Your task to perform on an android device: turn on priority inbox in the gmail app Image 0: 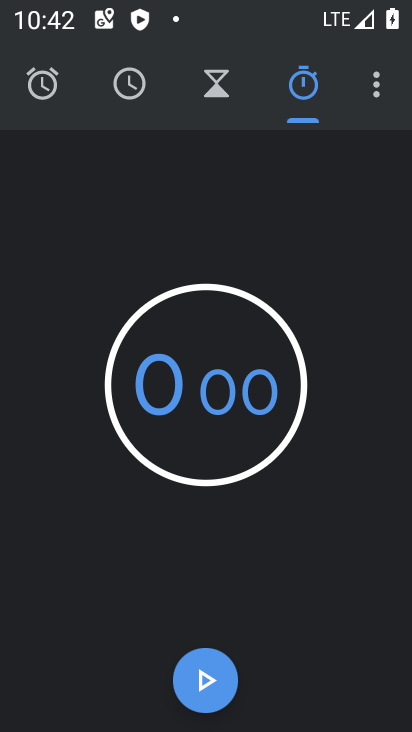
Step 0: press home button
Your task to perform on an android device: turn on priority inbox in the gmail app Image 1: 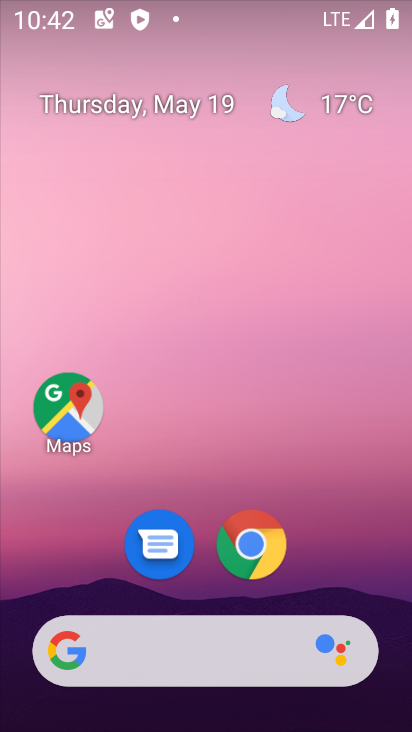
Step 1: drag from (263, 677) to (398, 67)
Your task to perform on an android device: turn on priority inbox in the gmail app Image 2: 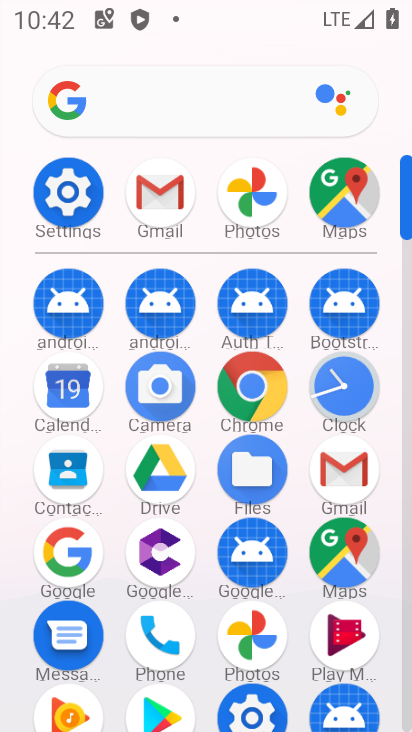
Step 2: click (159, 198)
Your task to perform on an android device: turn on priority inbox in the gmail app Image 3: 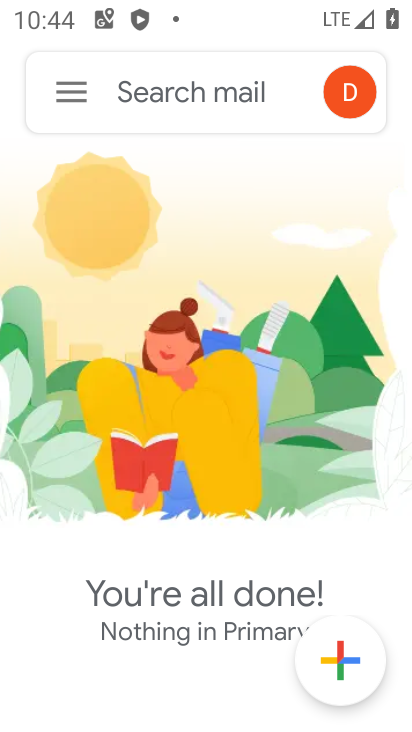
Step 3: click (82, 92)
Your task to perform on an android device: turn on priority inbox in the gmail app Image 4: 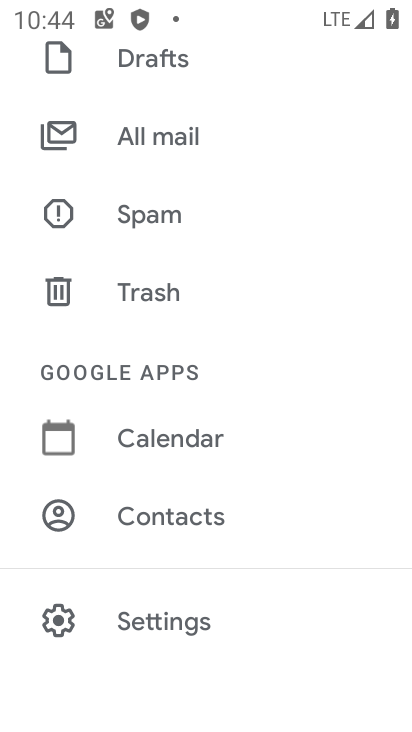
Step 4: click (164, 623)
Your task to perform on an android device: turn on priority inbox in the gmail app Image 5: 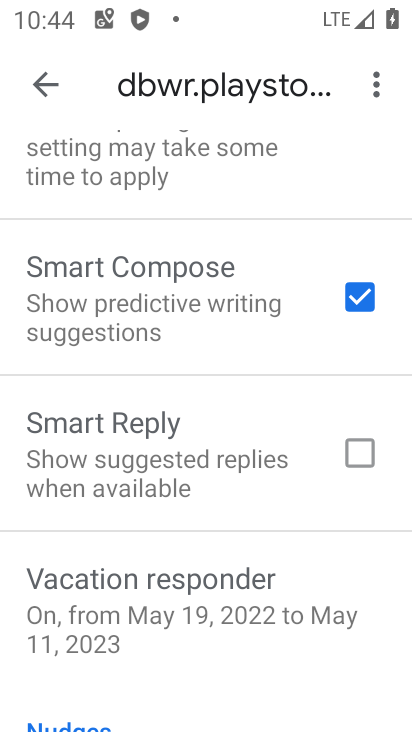
Step 5: drag from (266, 207) to (201, 709)
Your task to perform on an android device: turn on priority inbox in the gmail app Image 6: 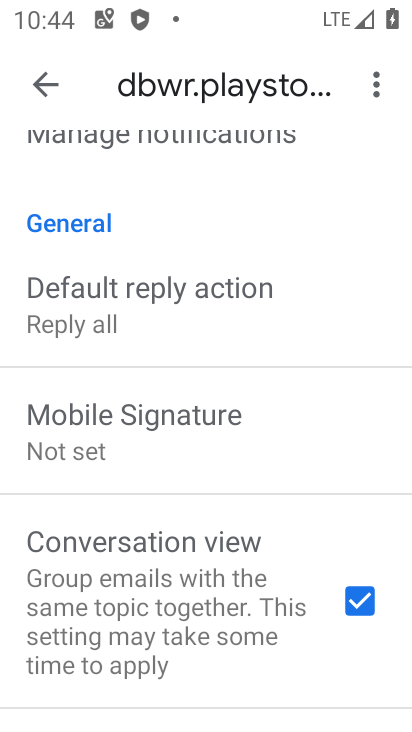
Step 6: drag from (253, 198) to (239, 723)
Your task to perform on an android device: turn on priority inbox in the gmail app Image 7: 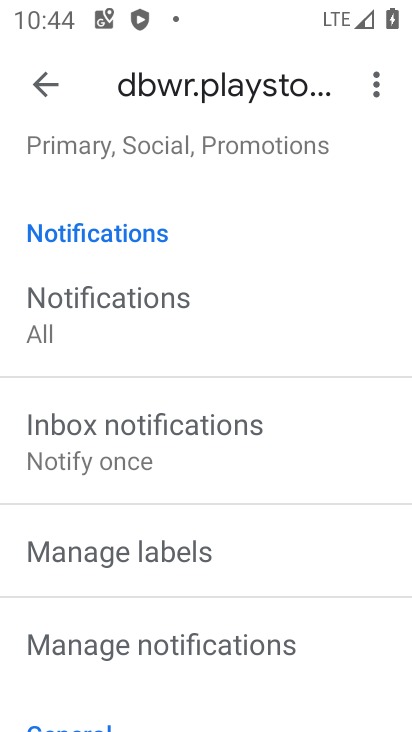
Step 7: drag from (245, 225) to (162, 726)
Your task to perform on an android device: turn on priority inbox in the gmail app Image 8: 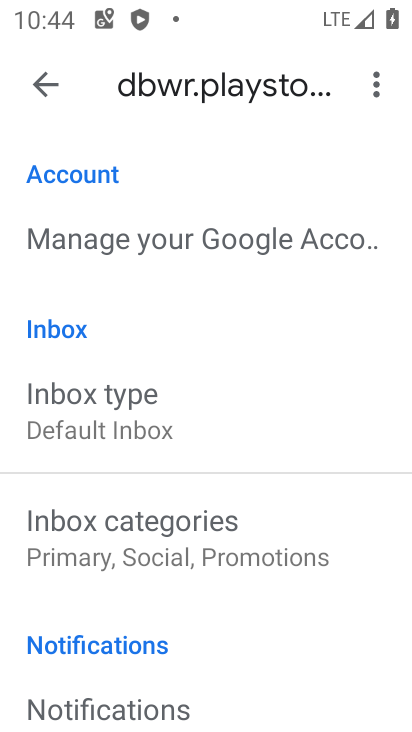
Step 8: click (99, 415)
Your task to perform on an android device: turn on priority inbox in the gmail app Image 9: 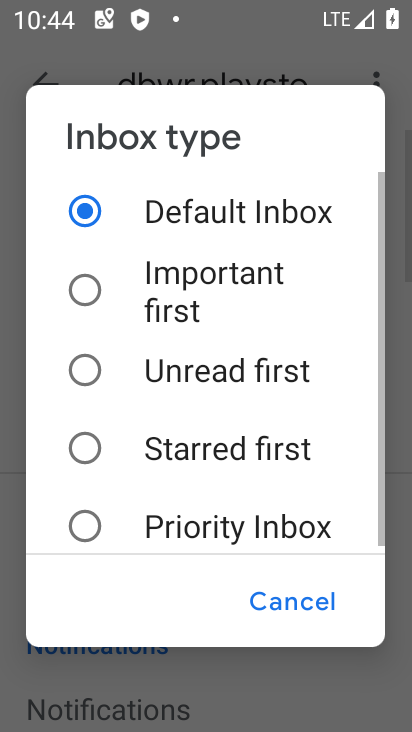
Step 9: click (248, 533)
Your task to perform on an android device: turn on priority inbox in the gmail app Image 10: 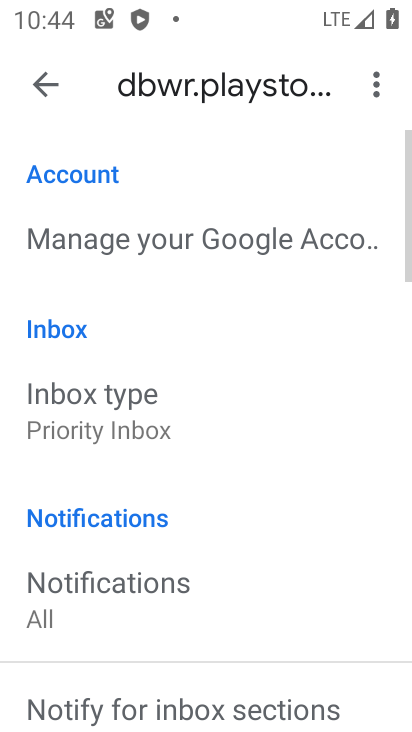
Step 10: task complete